Your task to perform on an android device: turn pop-ups off in chrome Image 0: 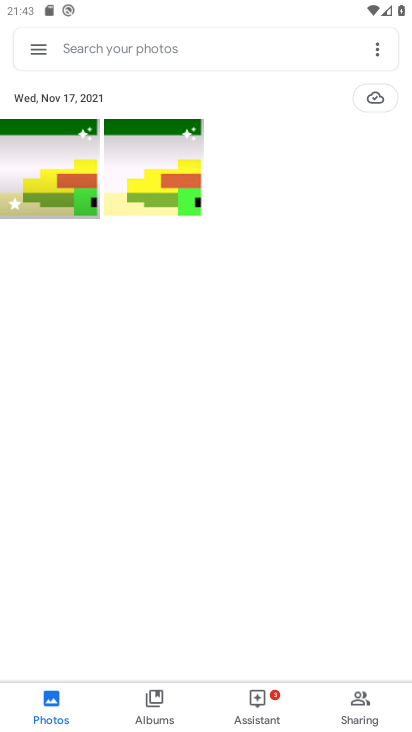
Step 0: press home button
Your task to perform on an android device: turn pop-ups off in chrome Image 1: 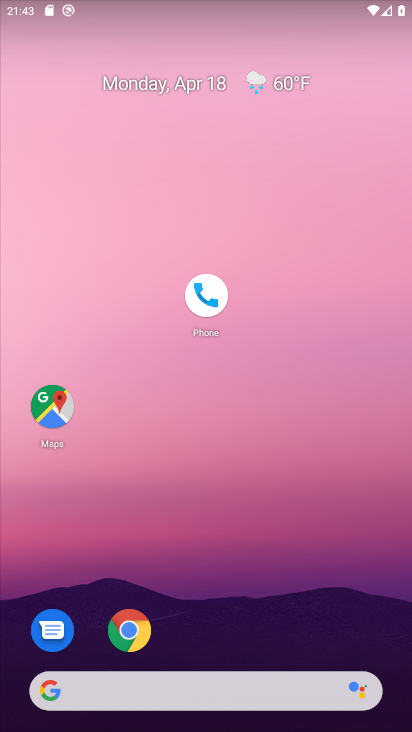
Step 1: drag from (223, 601) to (343, 195)
Your task to perform on an android device: turn pop-ups off in chrome Image 2: 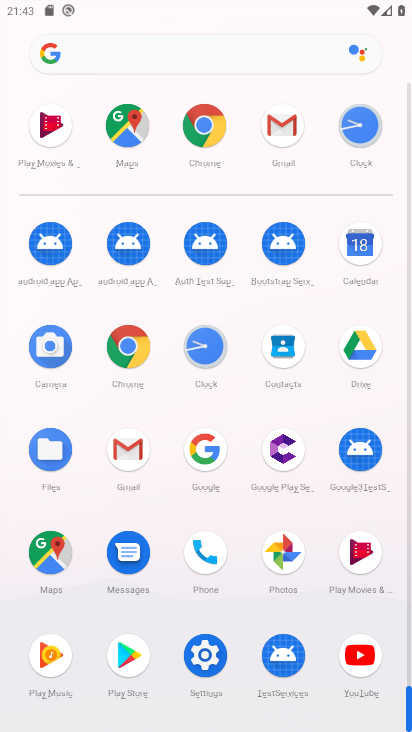
Step 2: click (207, 120)
Your task to perform on an android device: turn pop-ups off in chrome Image 3: 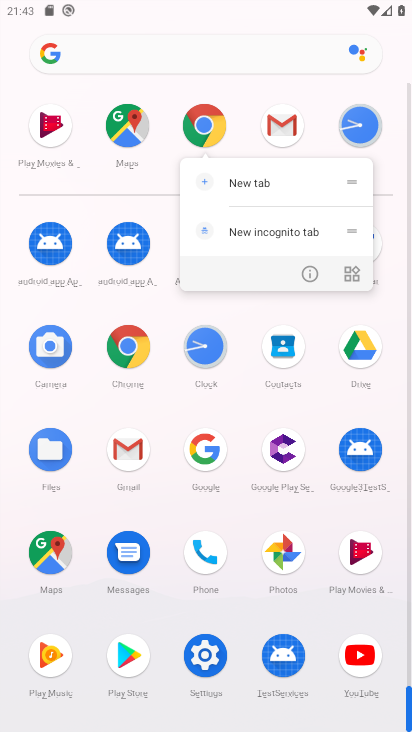
Step 3: click (135, 337)
Your task to perform on an android device: turn pop-ups off in chrome Image 4: 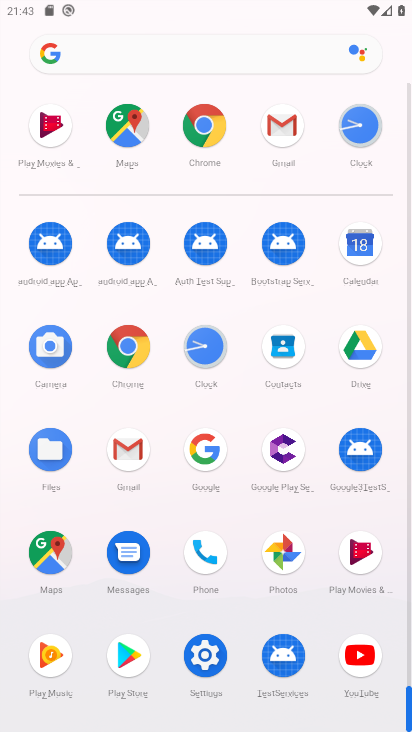
Step 4: click (135, 337)
Your task to perform on an android device: turn pop-ups off in chrome Image 5: 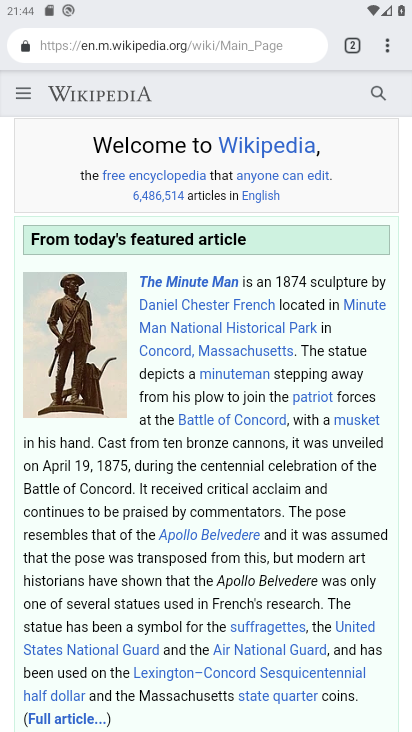
Step 5: click (387, 43)
Your task to perform on an android device: turn pop-ups off in chrome Image 6: 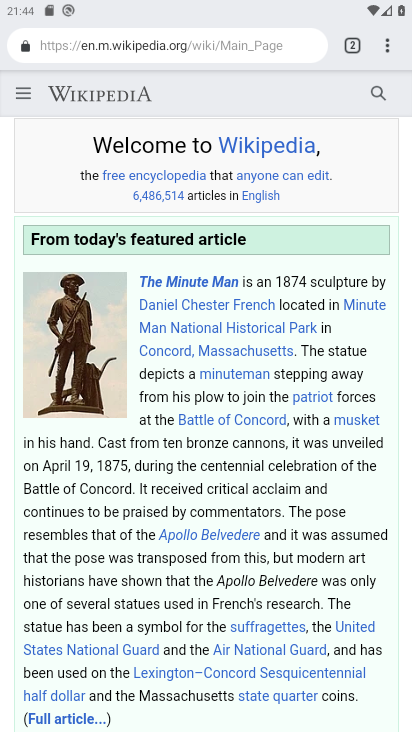
Step 6: drag from (389, 40) to (224, 610)
Your task to perform on an android device: turn pop-ups off in chrome Image 7: 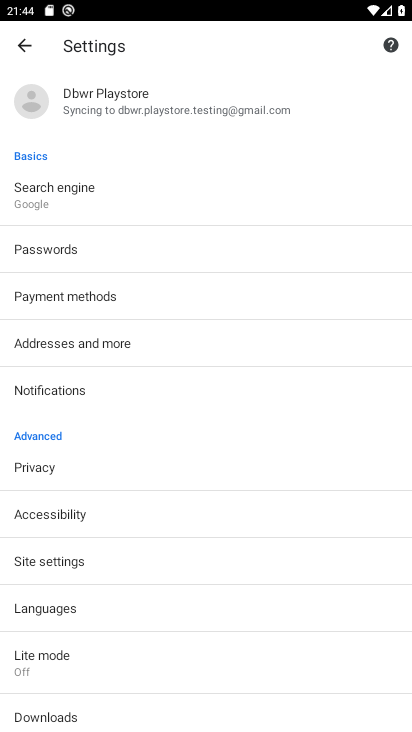
Step 7: click (44, 564)
Your task to perform on an android device: turn pop-ups off in chrome Image 8: 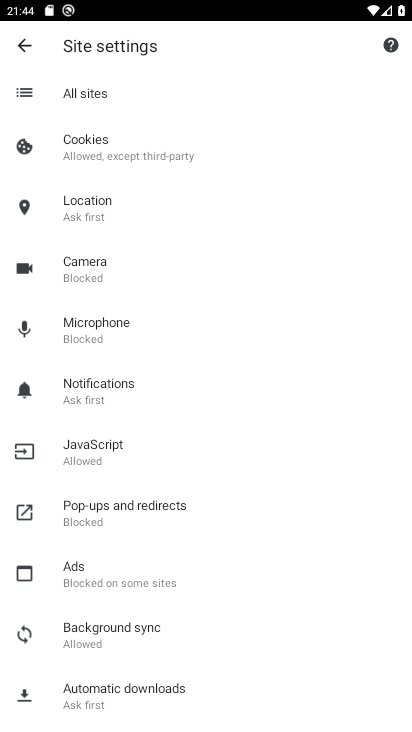
Step 8: click (91, 516)
Your task to perform on an android device: turn pop-ups off in chrome Image 9: 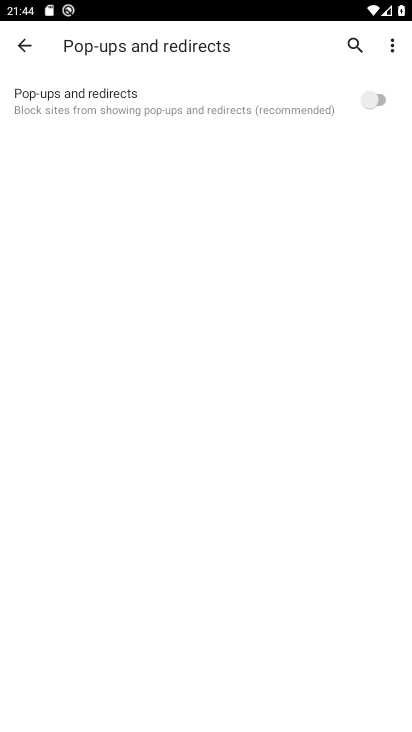
Step 9: task complete